Your task to perform on an android device: Go to Yahoo.com Image 0: 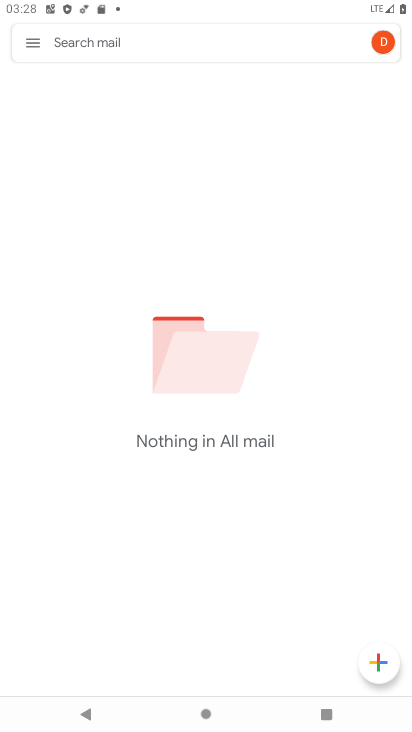
Step 0: press home button
Your task to perform on an android device: Go to Yahoo.com Image 1: 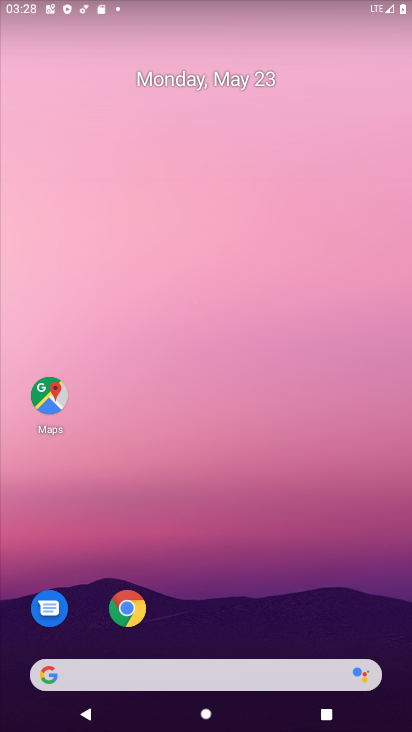
Step 1: click (128, 610)
Your task to perform on an android device: Go to Yahoo.com Image 2: 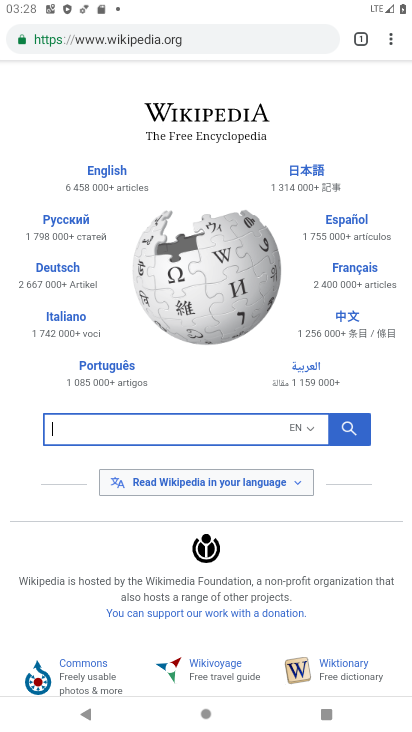
Step 2: click (234, 40)
Your task to perform on an android device: Go to Yahoo.com Image 3: 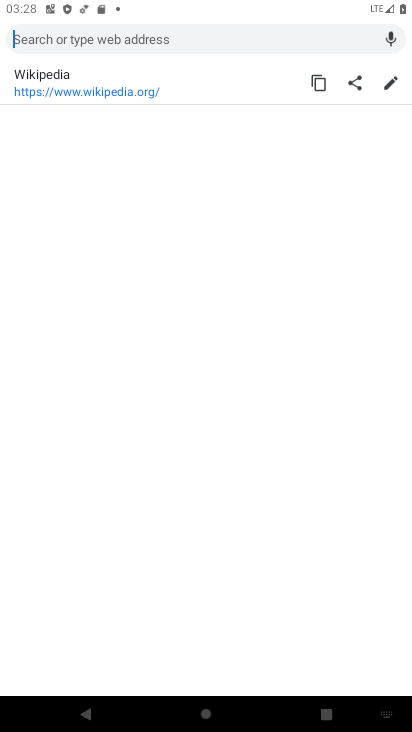
Step 3: type "Yahoo.com"
Your task to perform on an android device: Go to Yahoo.com Image 4: 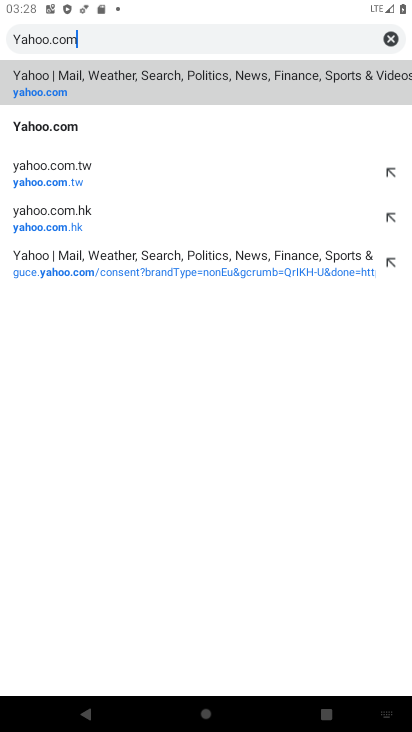
Step 4: type ""
Your task to perform on an android device: Go to Yahoo.com Image 5: 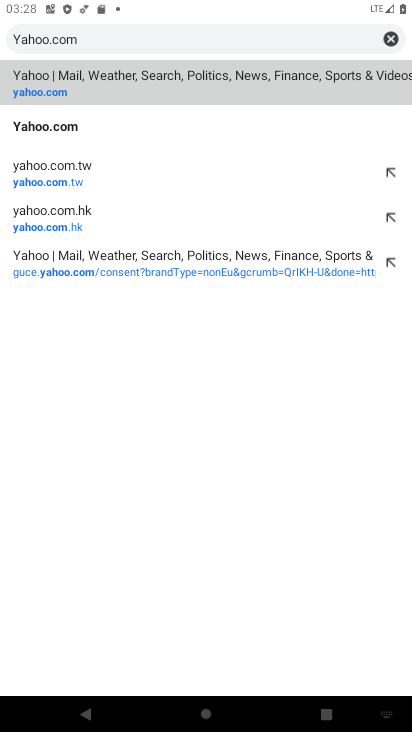
Step 5: click (52, 124)
Your task to perform on an android device: Go to Yahoo.com Image 6: 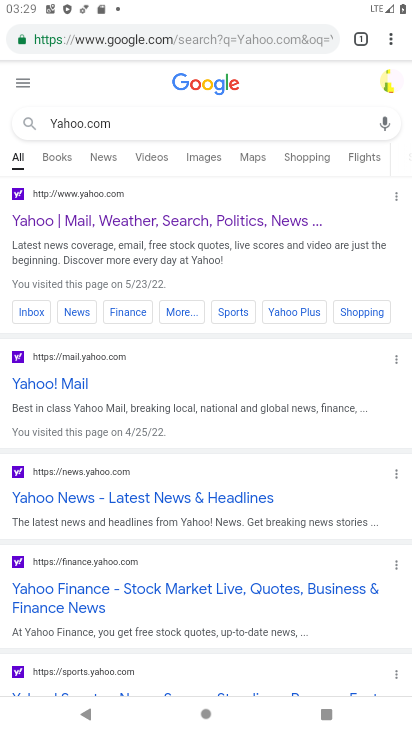
Step 6: click (75, 215)
Your task to perform on an android device: Go to Yahoo.com Image 7: 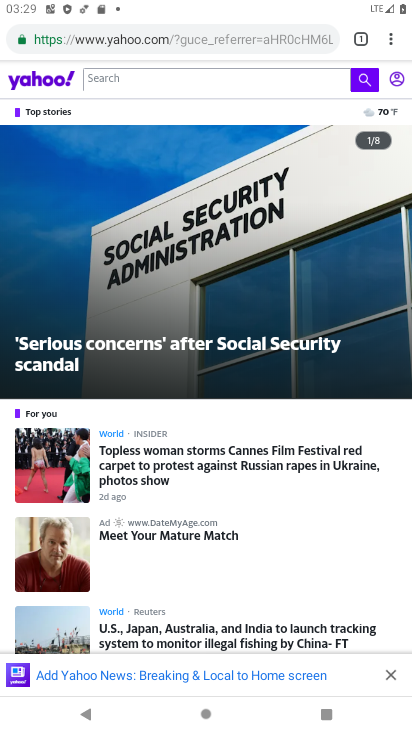
Step 7: task complete